Your task to perform on an android device: toggle data saver in the chrome app Image 0: 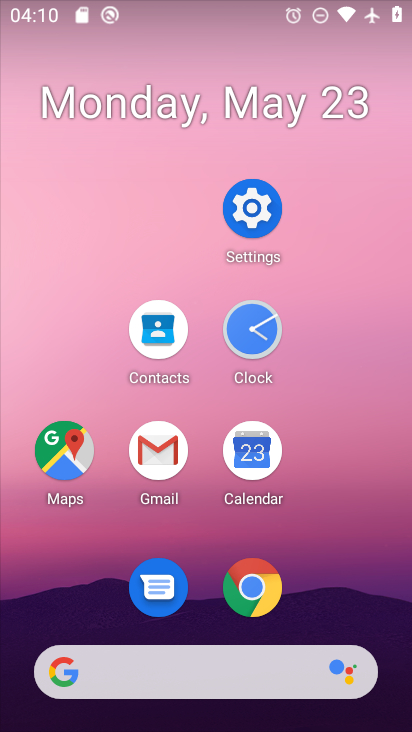
Step 0: click (258, 609)
Your task to perform on an android device: toggle data saver in the chrome app Image 1: 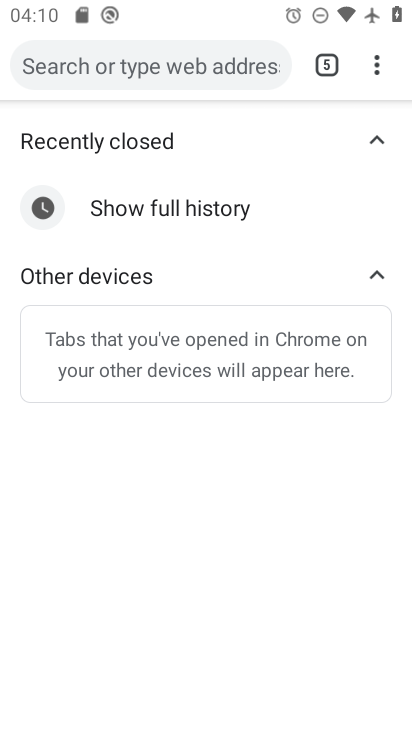
Step 1: click (380, 81)
Your task to perform on an android device: toggle data saver in the chrome app Image 2: 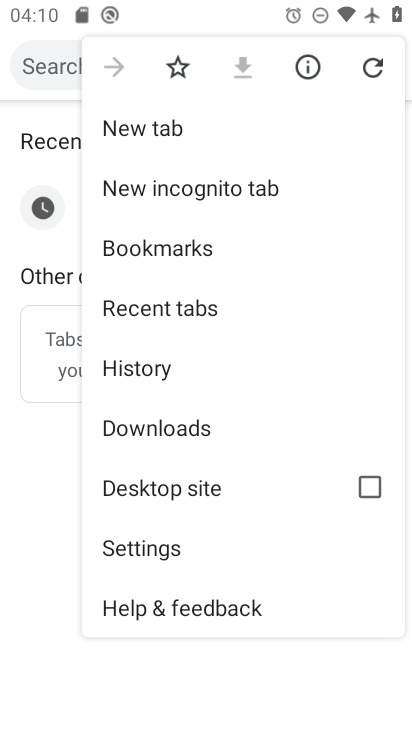
Step 2: click (207, 541)
Your task to perform on an android device: toggle data saver in the chrome app Image 3: 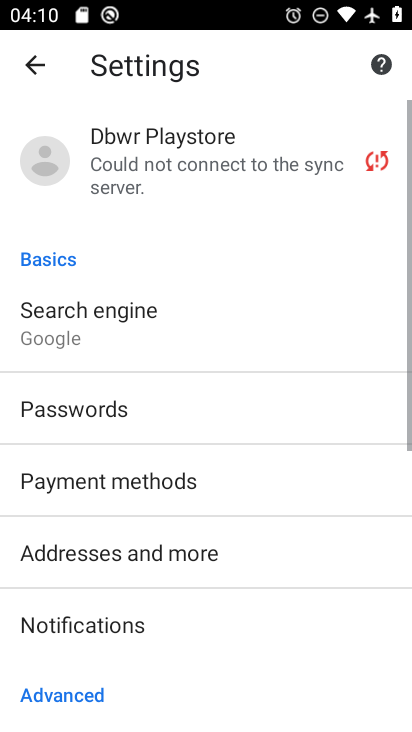
Step 3: drag from (207, 541) to (274, 182)
Your task to perform on an android device: toggle data saver in the chrome app Image 4: 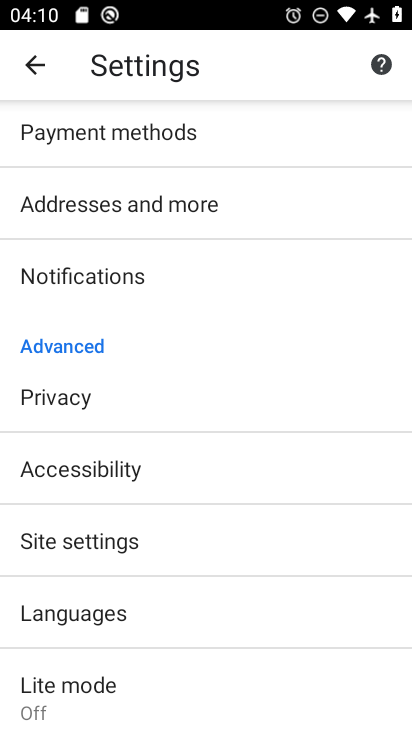
Step 4: click (180, 688)
Your task to perform on an android device: toggle data saver in the chrome app Image 5: 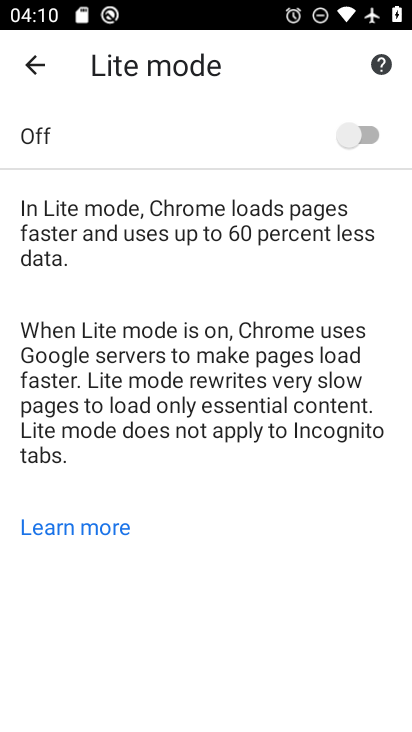
Step 5: click (365, 123)
Your task to perform on an android device: toggle data saver in the chrome app Image 6: 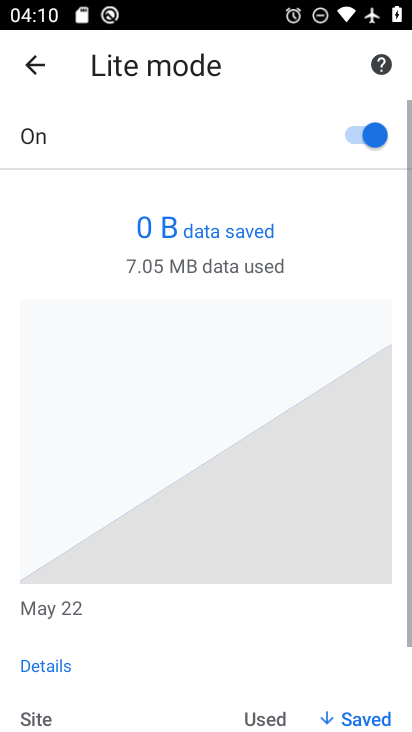
Step 6: task complete